Your task to perform on an android device: Open Yahoo.com Image 0: 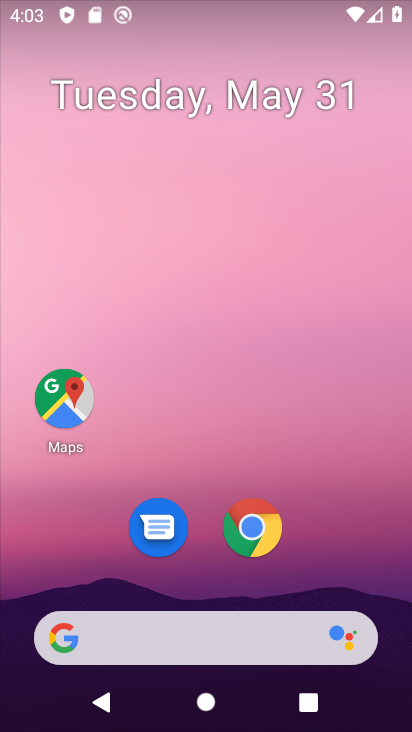
Step 0: click (270, 540)
Your task to perform on an android device: Open Yahoo.com Image 1: 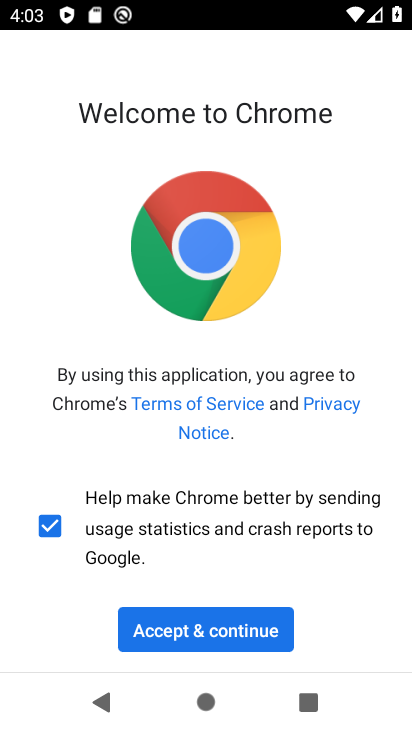
Step 1: click (237, 626)
Your task to perform on an android device: Open Yahoo.com Image 2: 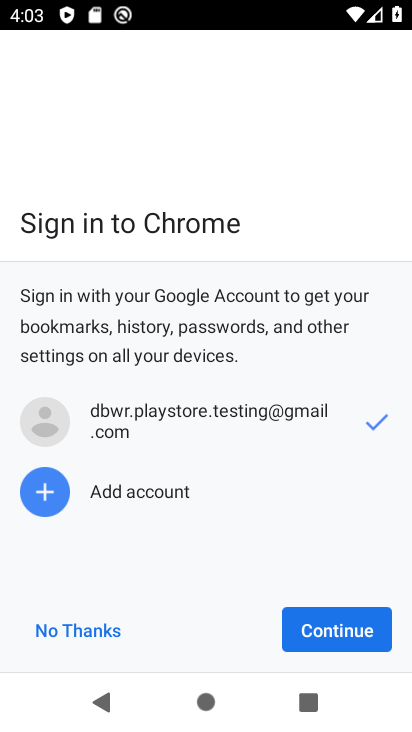
Step 2: click (344, 619)
Your task to perform on an android device: Open Yahoo.com Image 3: 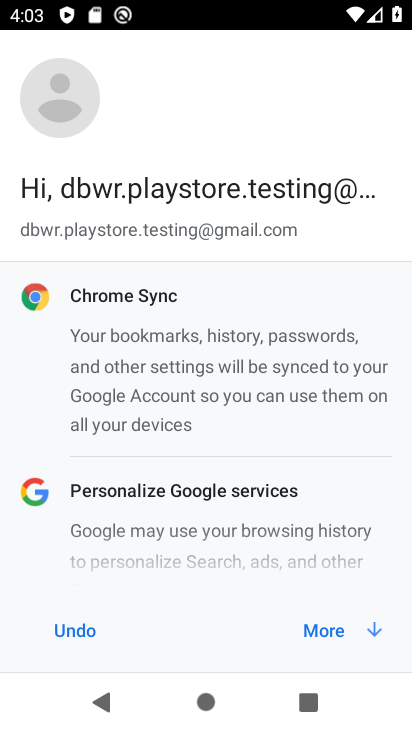
Step 3: click (344, 619)
Your task to perform on an android device: Open Yahoo.com Image 4: 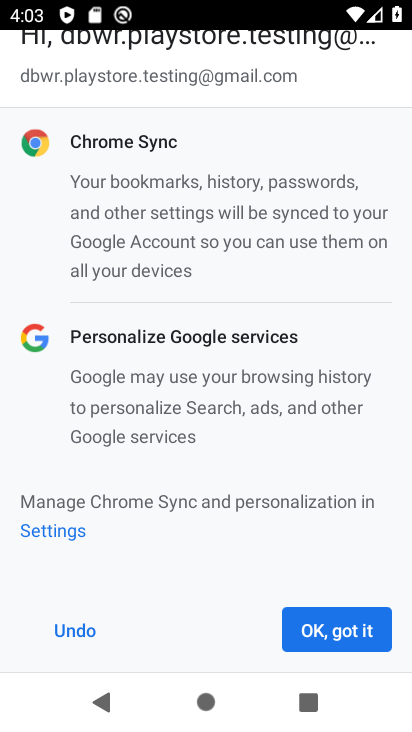
Step 4: click (344, 619)
Your task to perform on an android device: Open Yahoo.com Image 5: 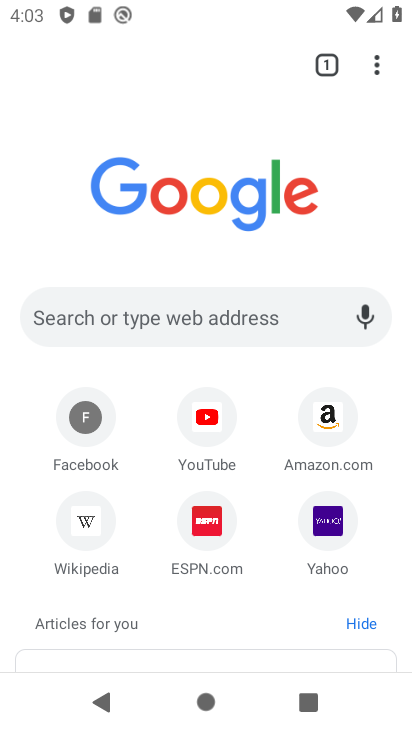
Step 5: click (331, 531)
Your task to perform on an android device: Open Yahoo.com Image 6: 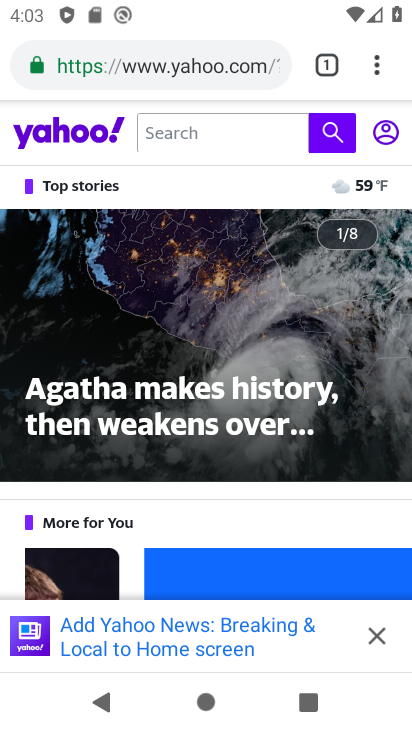
Step 6: task complete